Your task to perform on an android device: Do I have any events this weekend? Image 0: 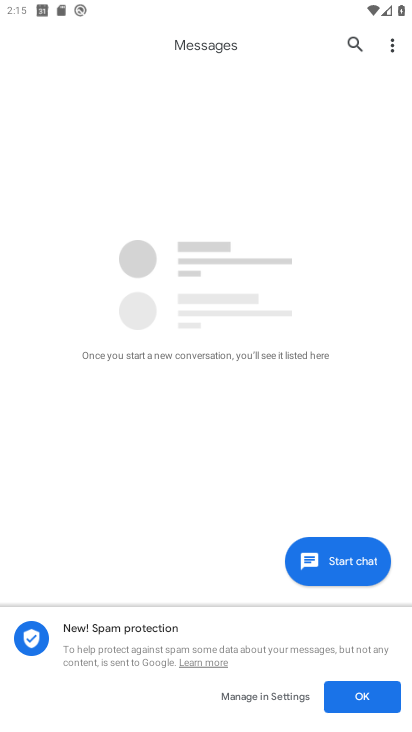
Step 0: press home button
Your task to perform on an android device: Do I have any events this weekend? Image 1: 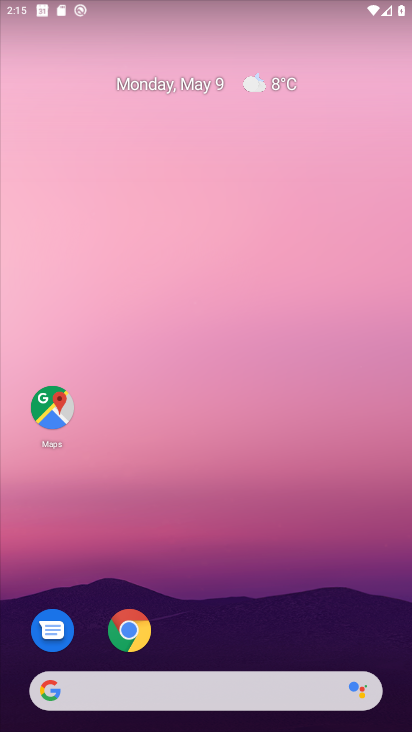
Step 1: drag from (239, 617) to (311, 10)
Your task to perform on an android device: Do I have any events this weekend? Image 2: 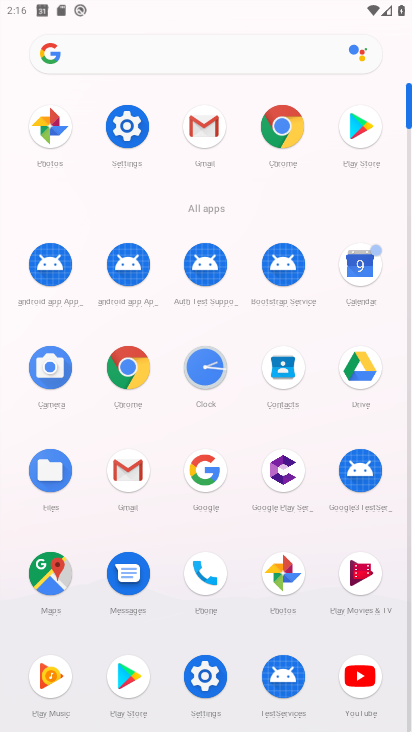
Step 2: click (360, 279)
Your task to perform on an android device: Do I have any events this weekend? Image 3: 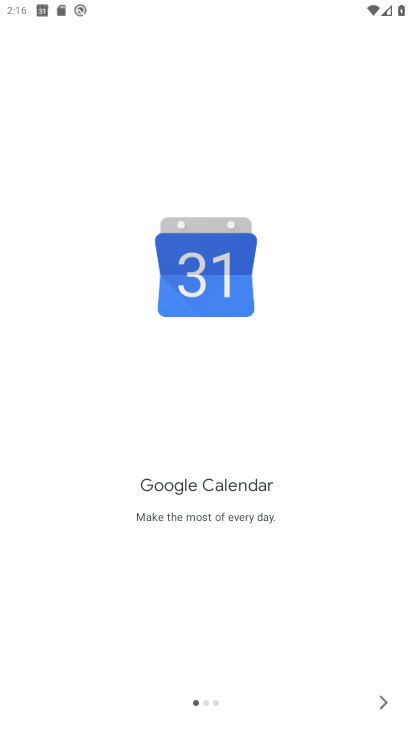
Step 3: click (373, 701)
Your task to perform on an android device: Do I have any events this weekend? Image 4: 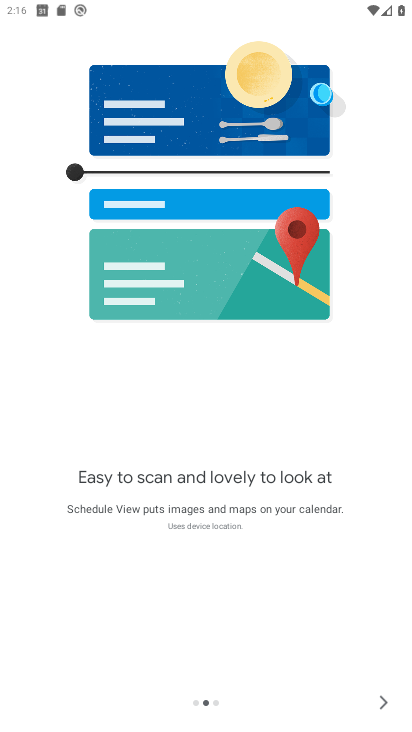
Step 4: click (373, 701)
Your task to perform on an android device: Do I have any events this weekend? Image 5: 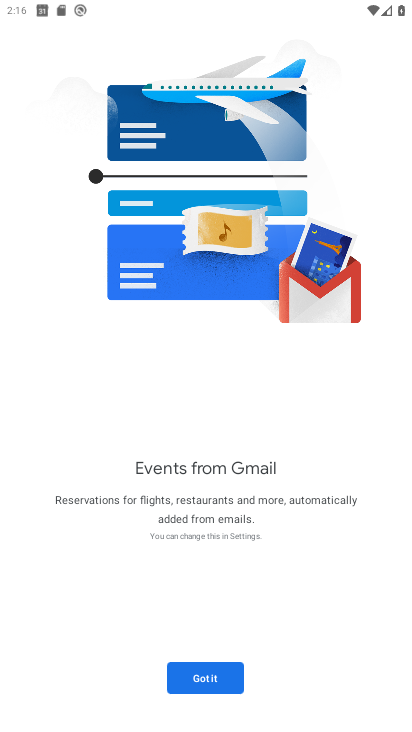
Step 5: click (212, 676)
Your task to perform on an android device: Do I have any events this weekend? Image 6: 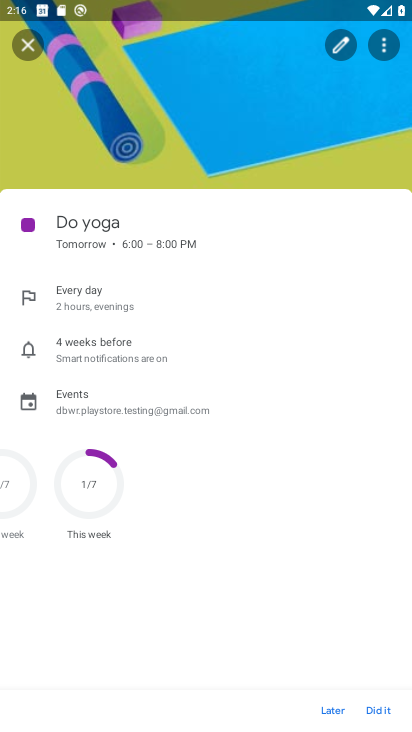
Step 6: click (20, 43)
Your task to perform on an android device: Do I have any events this weekend? Image 7: 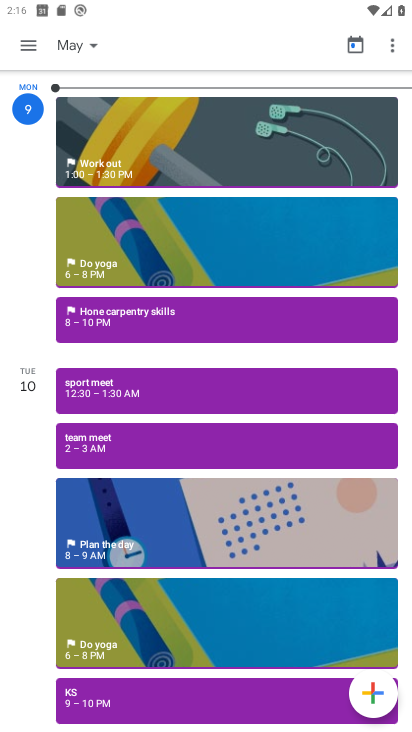
Step 7: drag from (213, 449) to (221, 323)
Your task to perform on an android device: Do I have any events this weekend? Image 8: 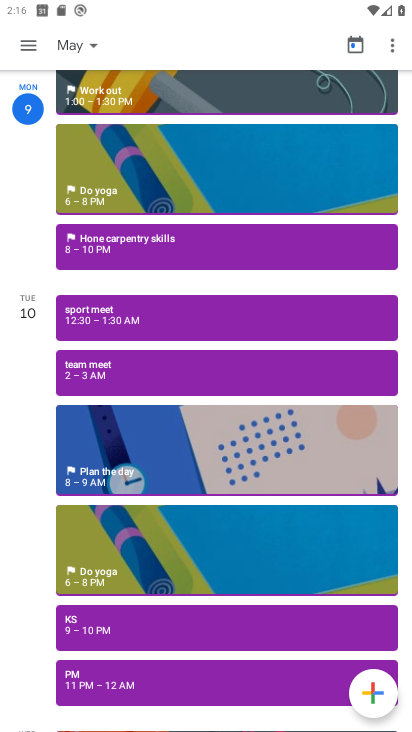
Step 8: click (38, 41)
Your task to perform on an android device: Do I have any events this weekend? Image 9: 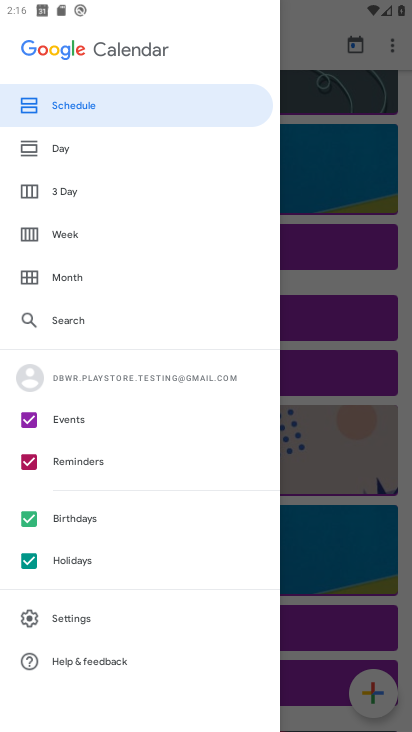
Step 9: click (100, 447)
Your task to perform on an android device: Do I have any events this weekend? Image 10: 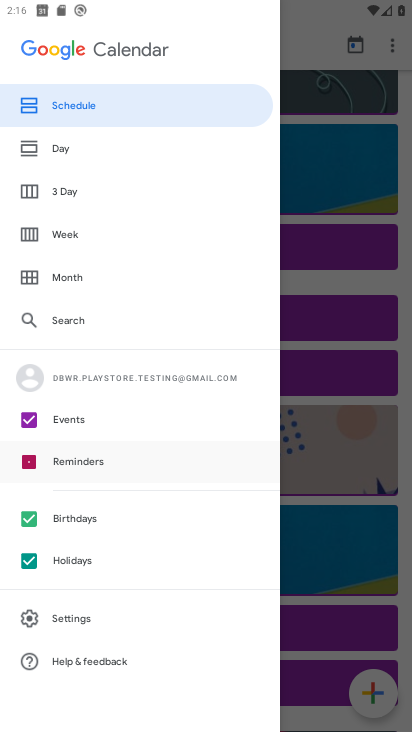
Step 10: click (90, 520)
Your task to perform on an android device: Do I have any events this weekend? Image 11: 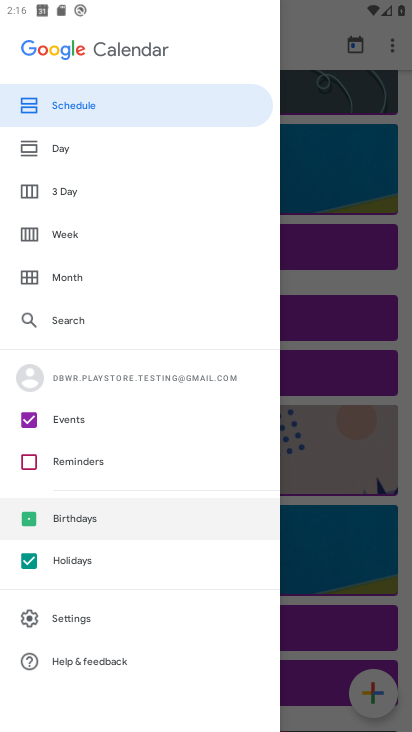
Step 11: click (79, 578)
Your task to perform on an android device: Do I have any events this weekend? Image 12: 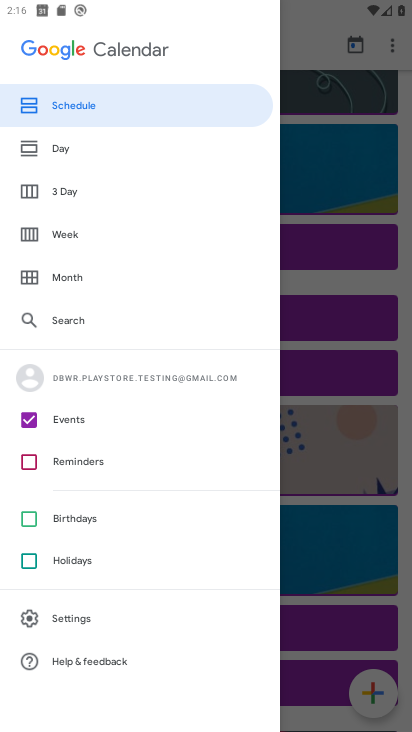
Step 12: click (85, 248)
Your task to perform on an android device: Do I have any events this weekend? Image 13: 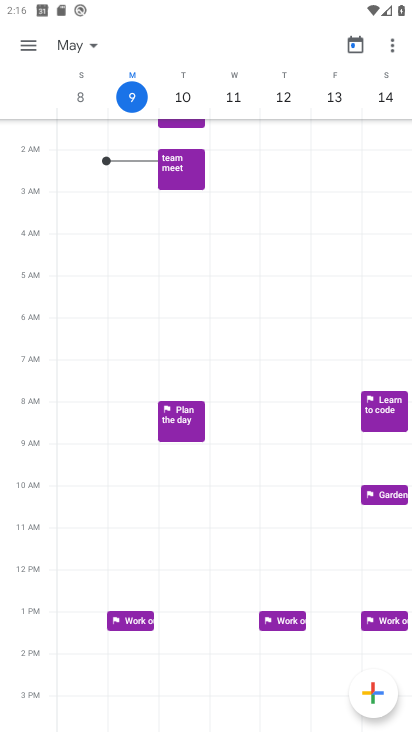
Step 13: task complete